Your task to perform on an android device: toggle sleep mode Image 0: 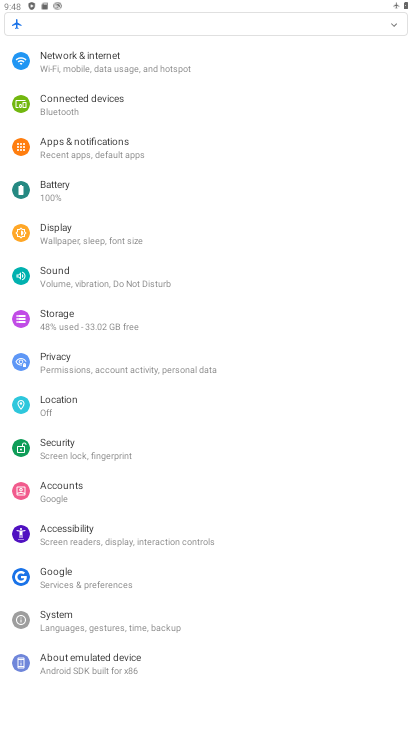
Step 0: click (199, 17)
Your task to perform on an android device: toggle sleep mode Image 1: 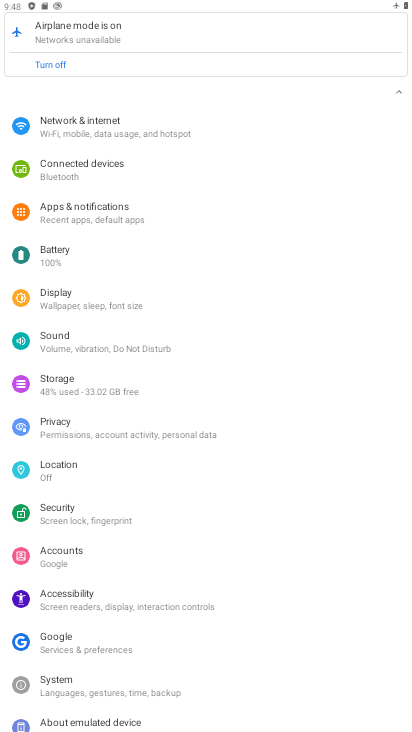
Step 1: drag from (237, 154) to (242, 613)
Your task to perform on an android device: toggle sleep mode Image 2: 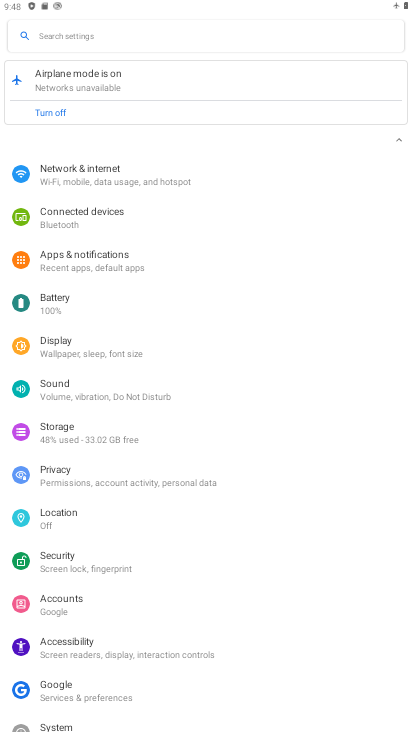
Step 2: click (130, 33)
Your task to perform on an android device: toggle sleep mode Image 3: 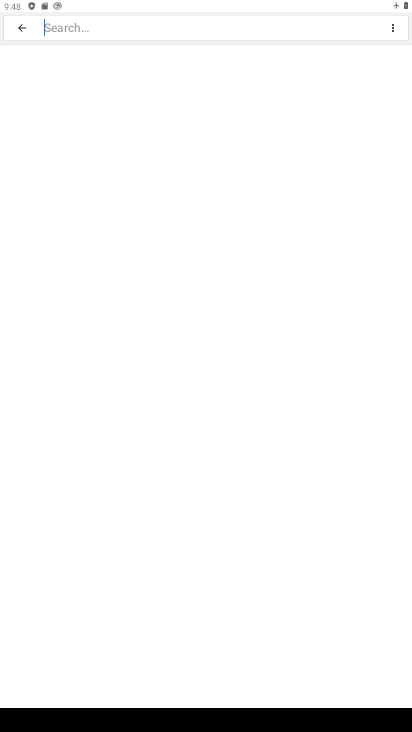
Step 3: click (14, 24)
Your task to perform on an android device: toggle sleep mode Image 4: 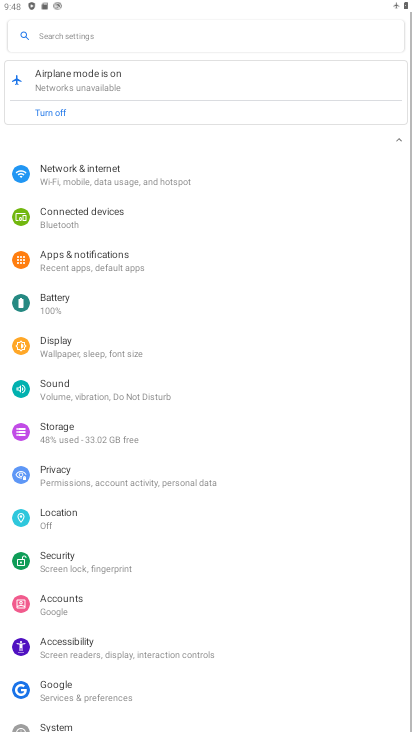
Step 4: click (118, 182)
Your task to perform on an android device: toggle sleep mode Image 5: 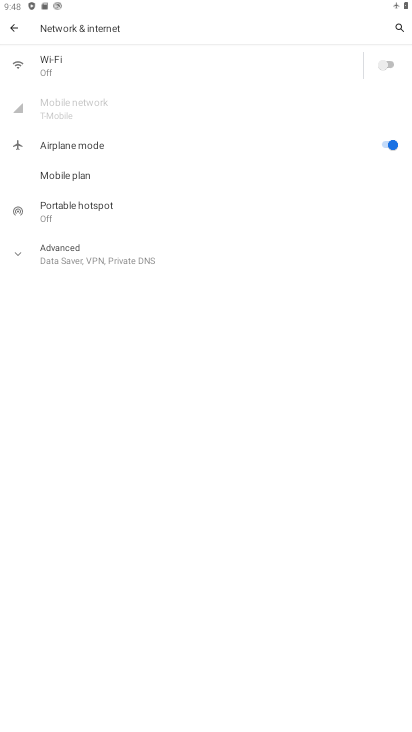
Step 5: click (375, 144)
Your task to perform on an android device: toggle sleep mode Image 6: 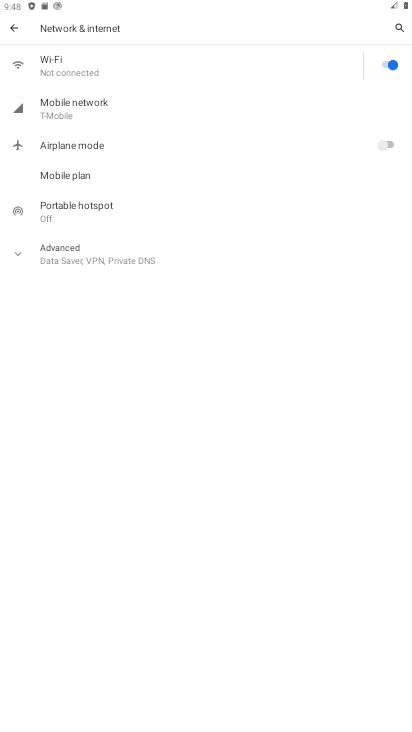
Step 6: click (10, 31)
Your task to perform on an android device: toggle sleep mode Image 7: 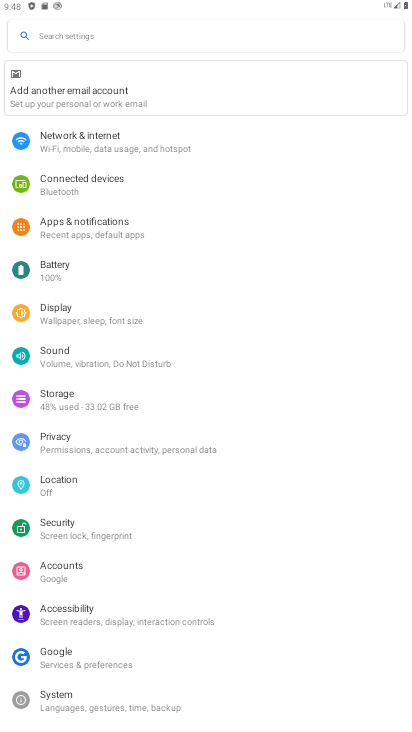
Step 7: click (176, 47)
Your task to perform on an android device: toggle sleep mode Image 8: 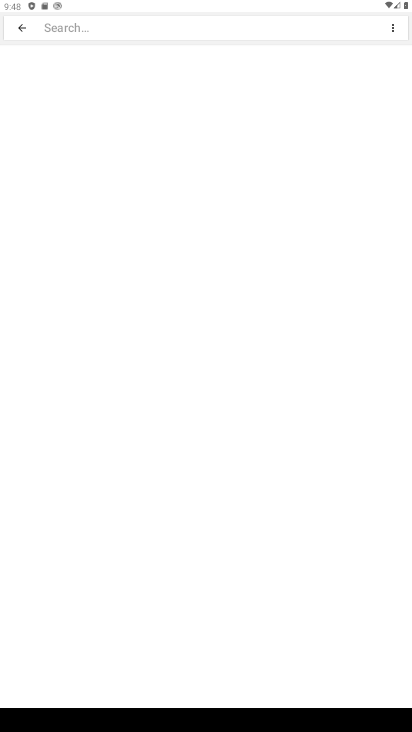
Step 8: type "sleep mode"
Your task to perform on an android device: toggle sleep mode Image 9: 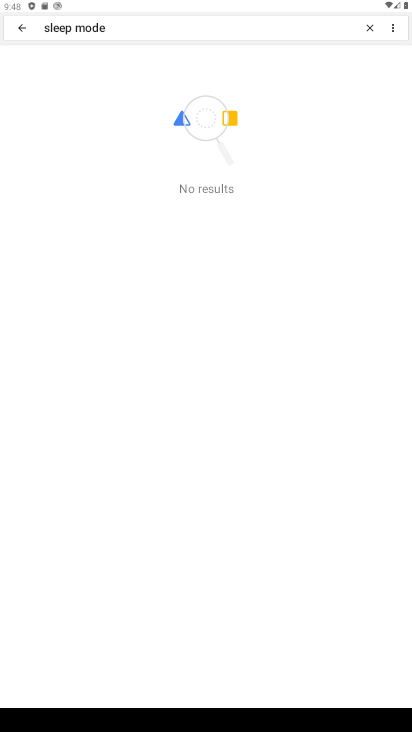
Step 9: task complete